Your task to perform on an android device: Go to Yahoo.com Image 0: 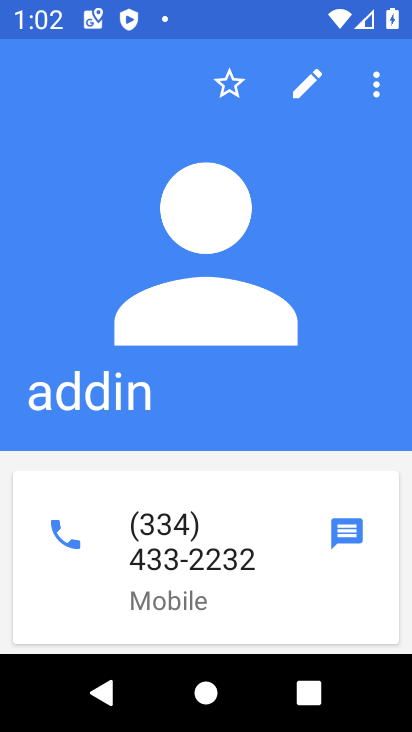
Step 0: press home button
Your task to perform on an android device: Go to Yahoo.com Image 1: 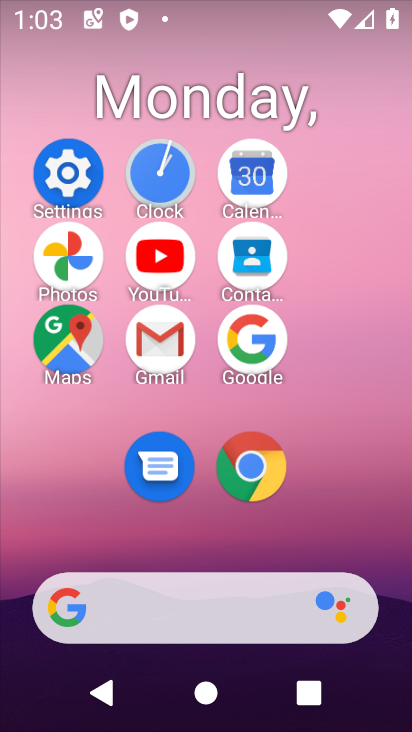
Step 1: click (263, 472)
Your task to perform on an android device: Go to Yahoo.com Image 2: 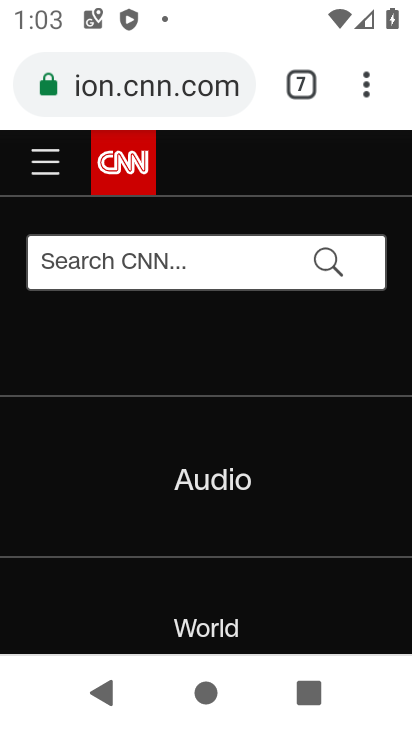
Step 2: click (303, 70)
Your task to perform on an android device: Go to Yahoo.com Image 3: 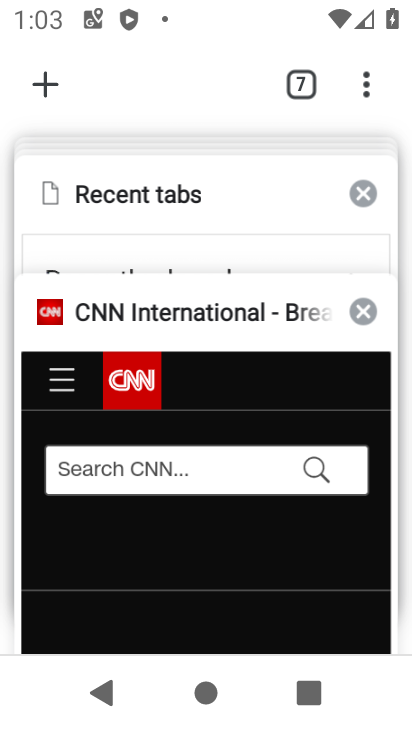
Step 3: drag from (188, 243) to (223, 694)
Your task to perform on an android device: Go to Yahoo.com Image 4: 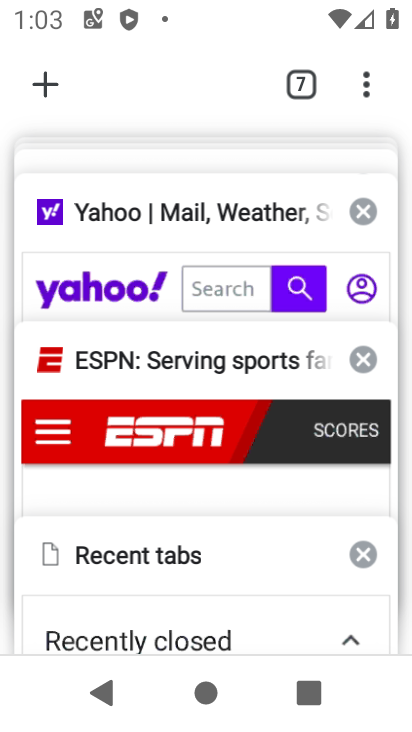
Step 4: click (208, 217)
Your task to perform on an android device: Go to Yahoo.com Image 5: 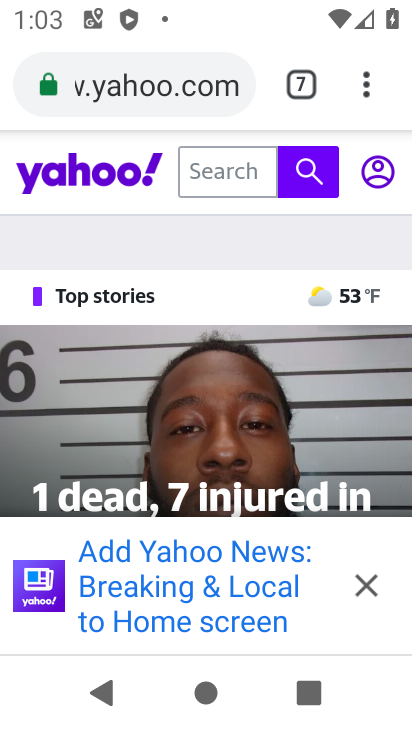
Step 5: task complete